Your task to perform on an android device: Open Youtube and go to "Your channel" Image 0: 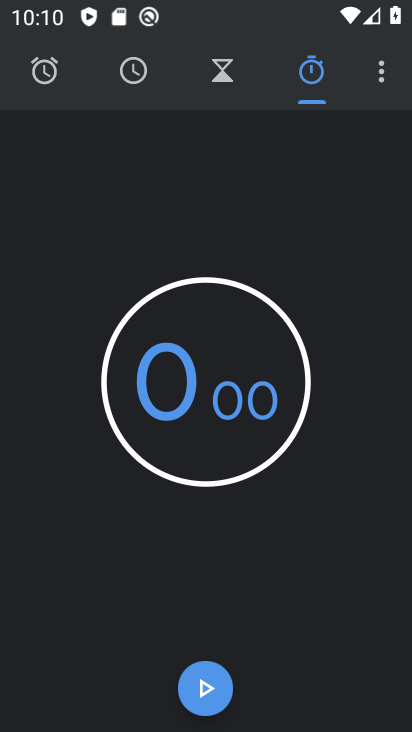
Step 0: press home button
Your task to perform on an android device: Open Youtube and go to "Your channel" Image 1: 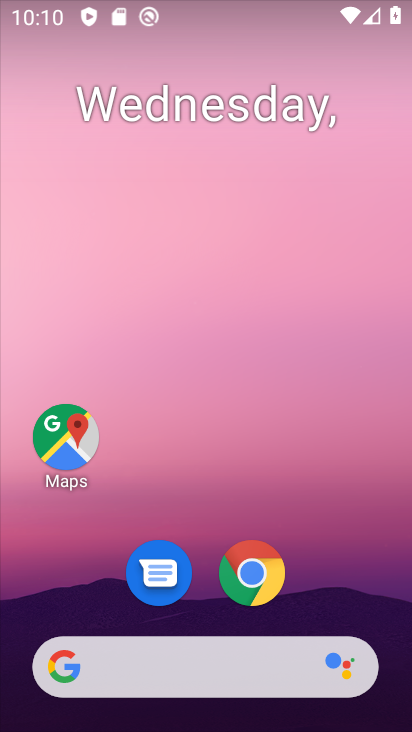
Step 1: drag from (372, 281) to (372, 155)
Your task to perform on an android device: Open Youtube and go to "Your channel" Image 2: 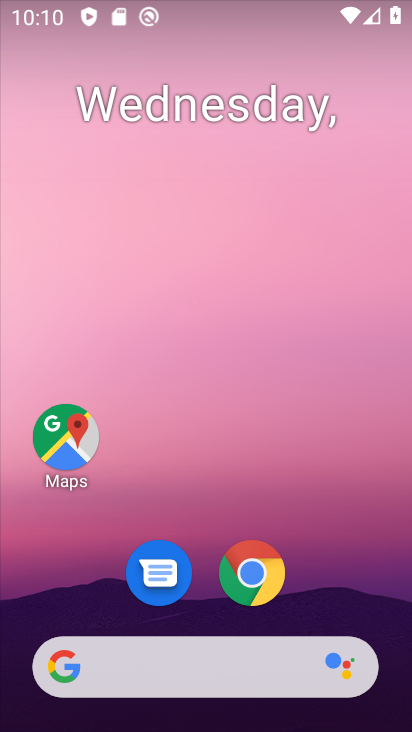
Step 2: drag from (403, 640) to (376, 285)
Your task to perform on an android device: Open Youtube and go to "Your channel" Image 3: 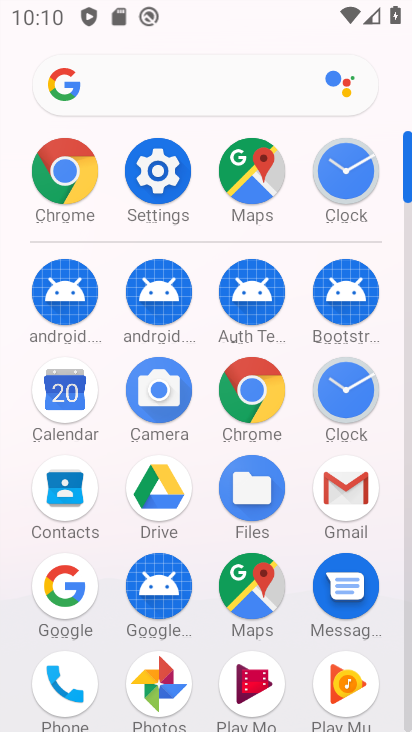
Step 3: drag from (407, 166) to (410, 32)
Your task to perform on an android device: Open Youtube and go to "Your channel" Image 4: 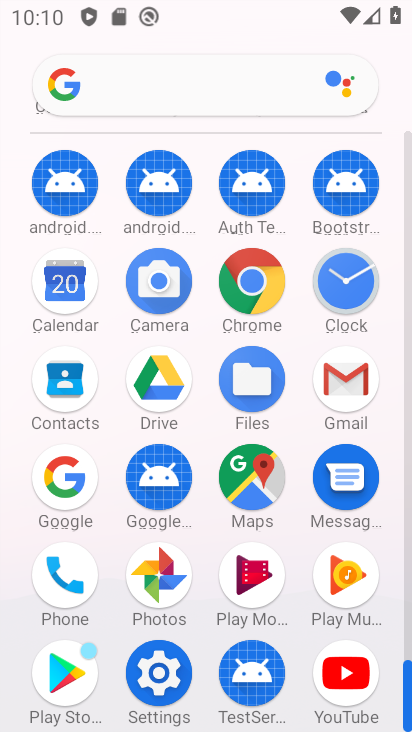
Step 4: click (324, 672)
Your task to perform on an android device: Open Youtube and go to "Your channel" Image 5: 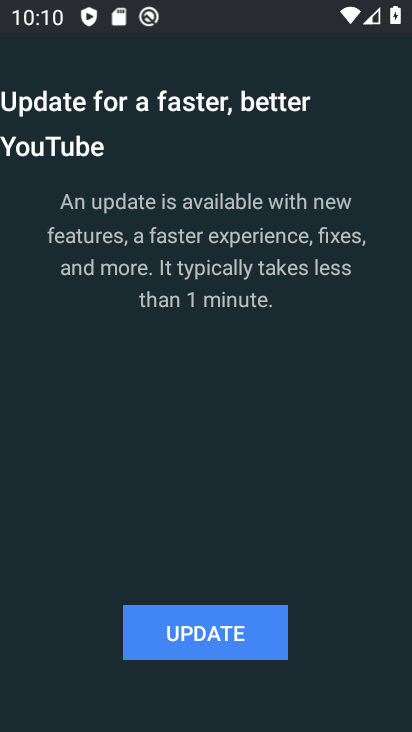
Step 5: click (199, 630)
Your task to perform on an android device: Open Youtube and go to "Your channel" Image 6: 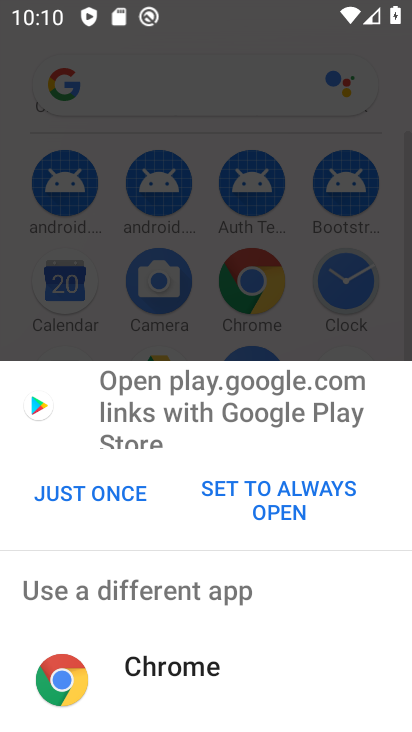
Step 6: drag from (315, 497) to (321, 439)
Your task to perform on an android device: Open Youtube and go to "Your channel" Image 7: 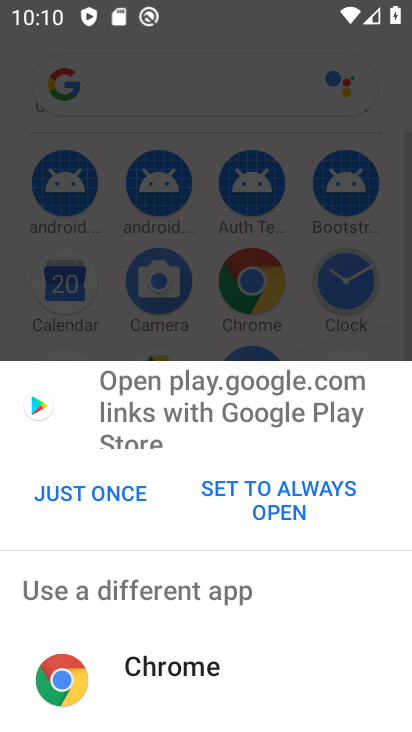
Step 7: click (93, 491)
Your task to perform on an android device: Open Youtube and go to "Your channel" Image 8: 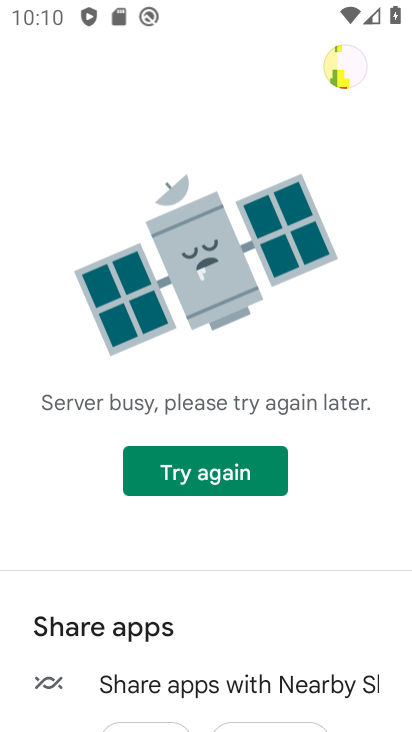
Step 8: click (198, 458)
Your task to perform on an android device: Open Youtube and go to "Your channel" Image 9: 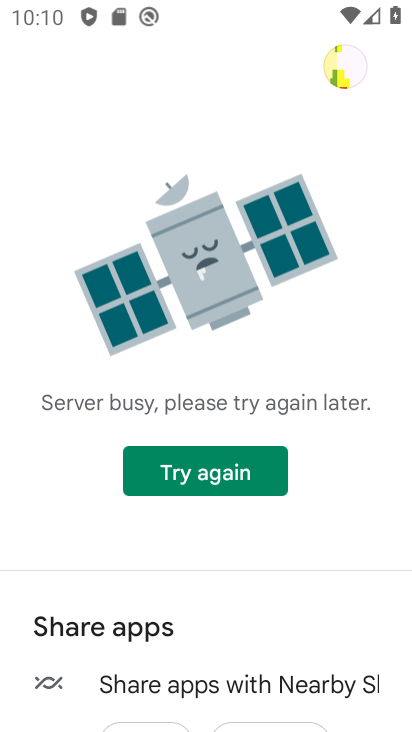
Step 9: task complete